Your task to perform on an android device: Go to Amazon Image 0: 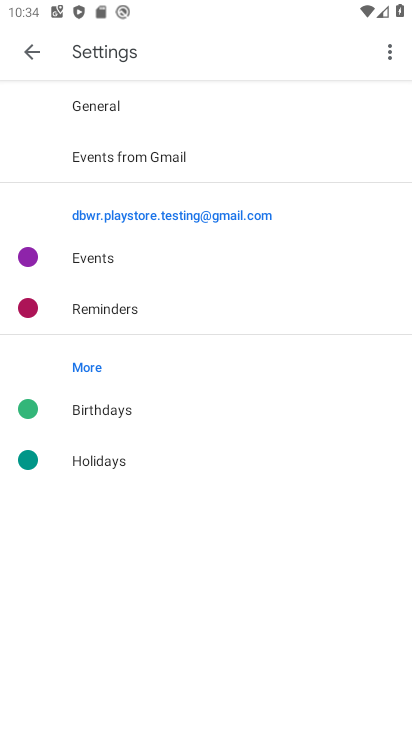
Step 0: press home button
Your task to perform on an android device: Go to Amazon Image 1: 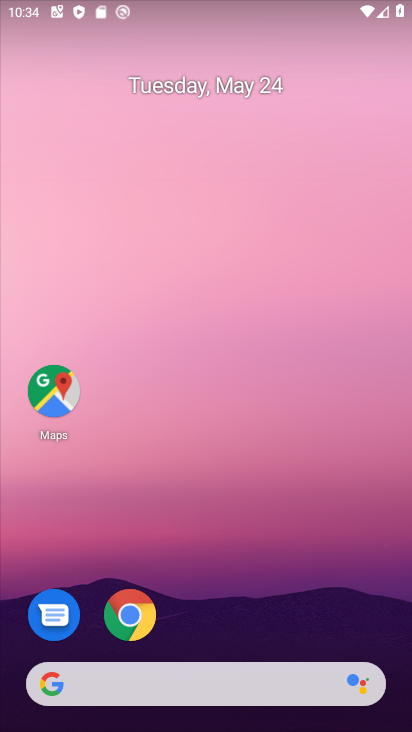
Step 1: click (112, 628)
Your task to perform on an android device: Go to Amazon Image 2: 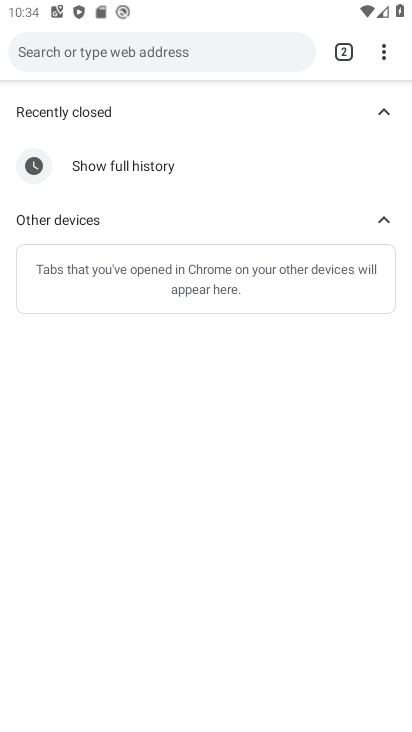
Step 2: click (65, 45)
Your task to perform on an android device: Go to Amazon Image 3: 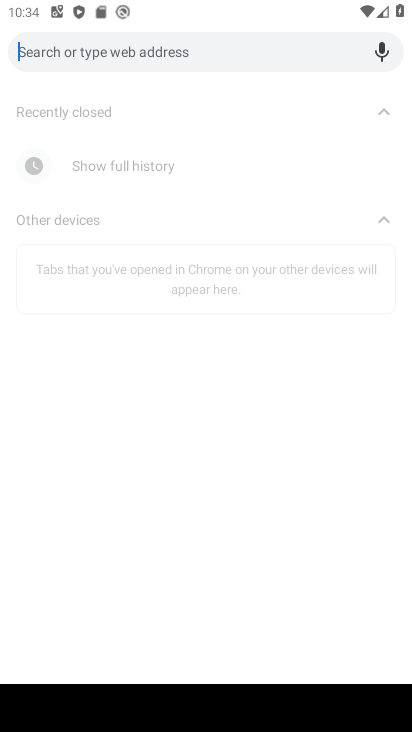
Step 3: press back button
Your task to perform on an android device: Go to Amazon Image 4: 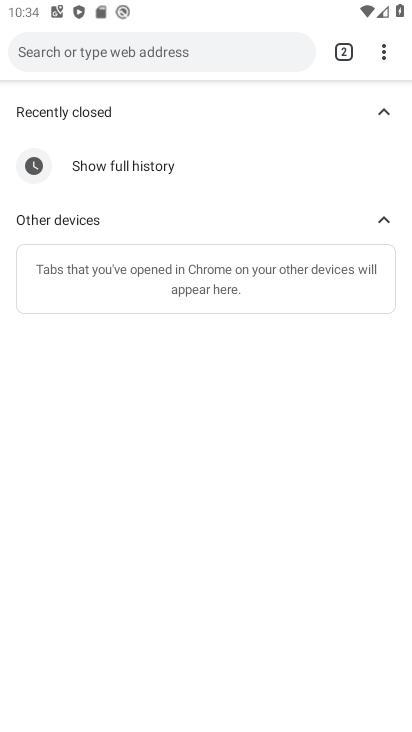
Step 4: click (352, 53)
Your task to perform on an android device: Go to Amazon Image 5: 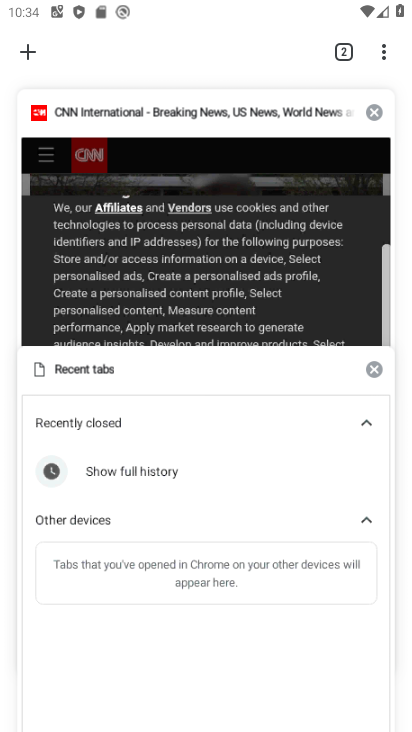
Step 5: click (33, 59)
Your task to perform on an android device: Go to Amazon Image 6: 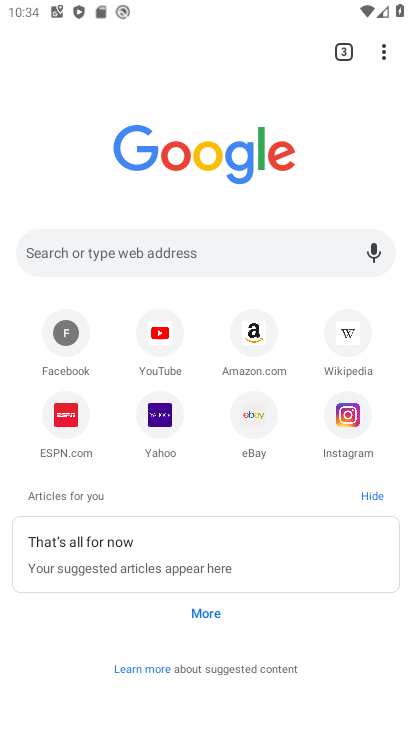
Step 6: click (258, 343)
Your task to perform on an android device: Go to Amazon Image 7: 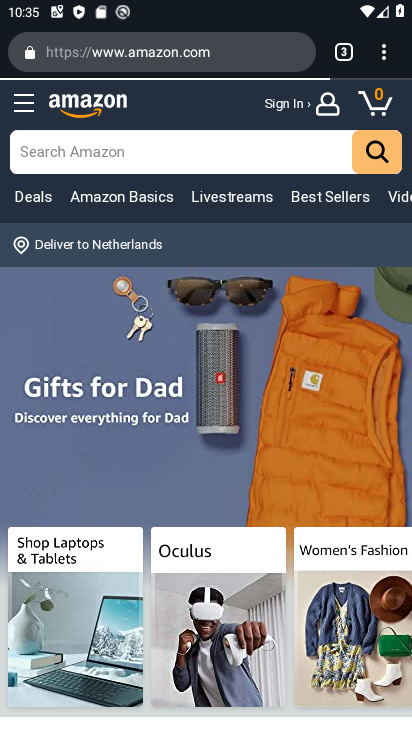
Step 7: task complete